Your task to perform on an android device: Show the shopping cart on walmart.com. Search for usb-c to usb-b on walmart.com, select the first entry, add it to the cart, then select checkout. Image 0: 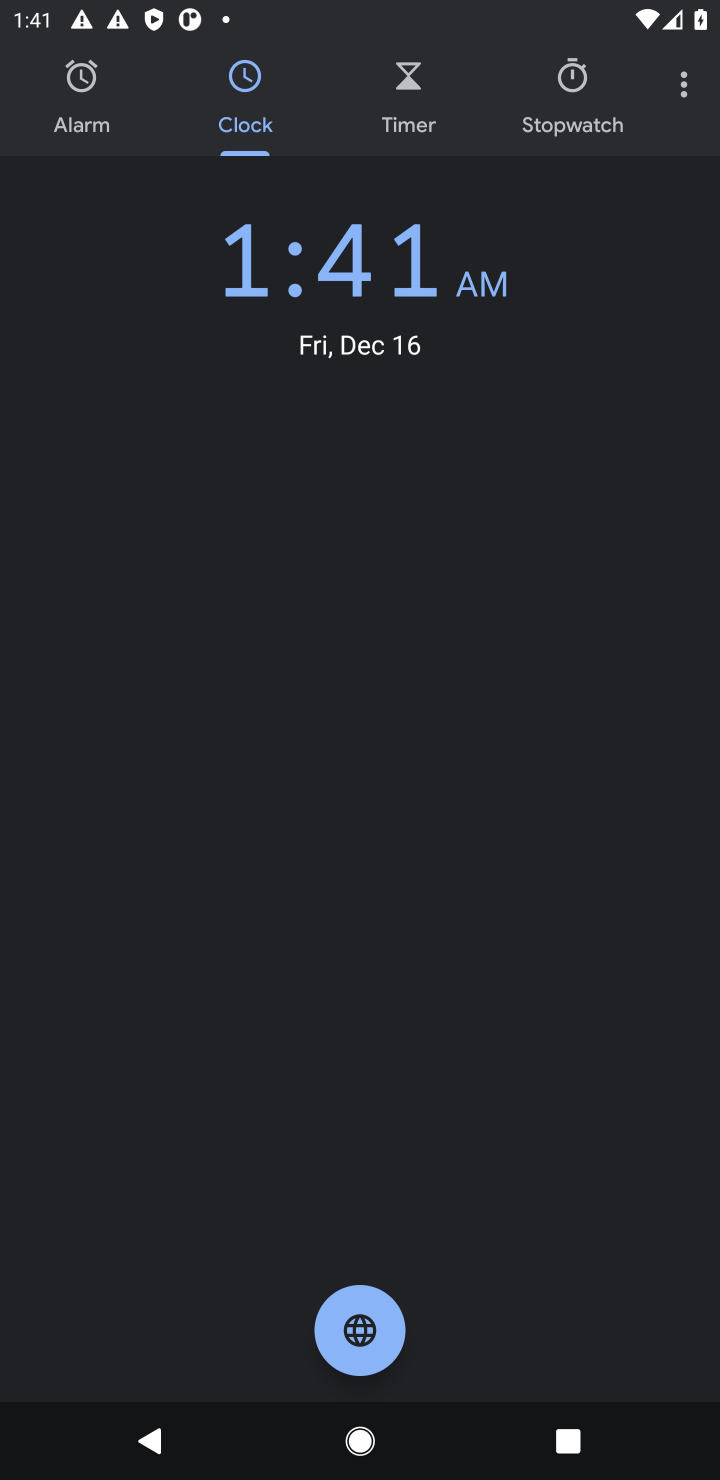
Step 0: press home button
Your task to perform on an android device: Show the shopping cart on walmart.com. Search for usb-c to usb-b on walmart.com, select the first entry, add it to the cart, then select checkout. Image 1: 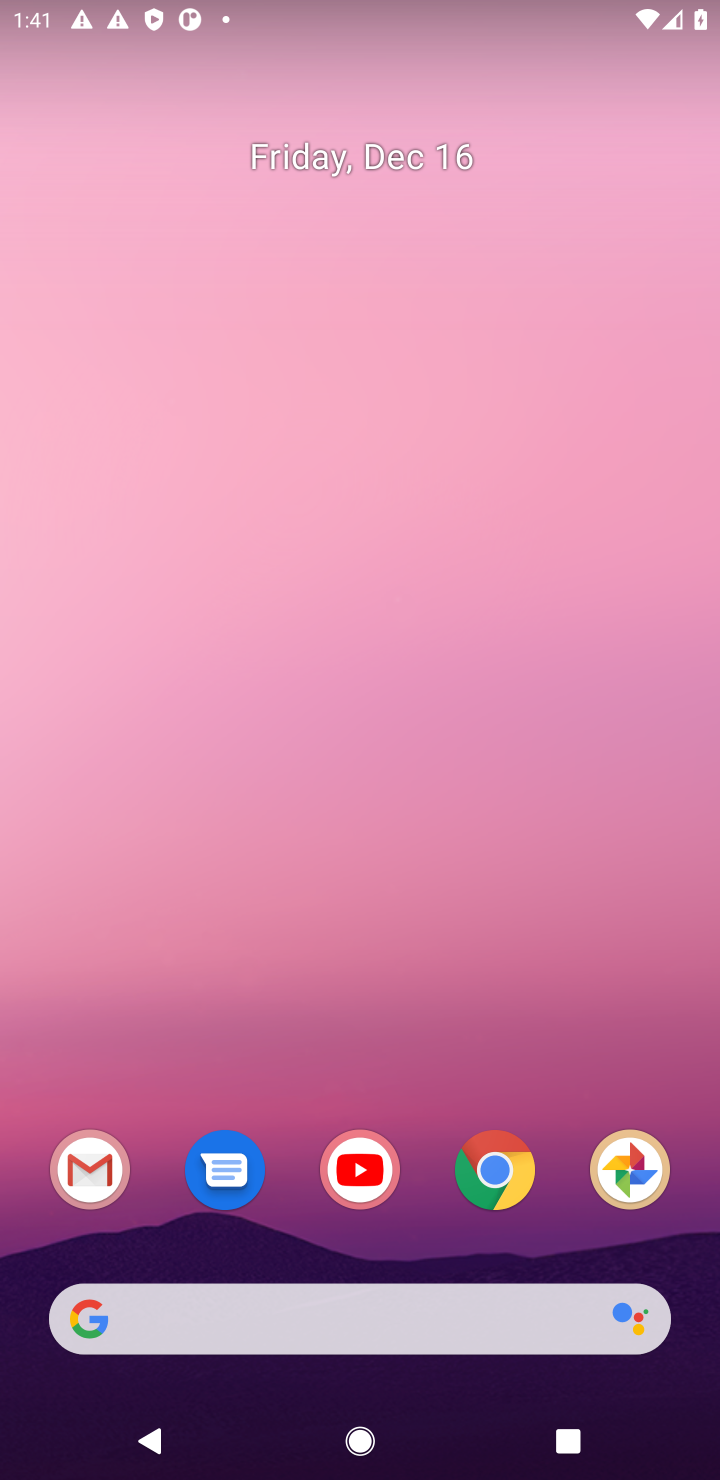
Step 1: click (491, 1181)
Your task to perform on an android device: Show the shopping cart on walmart.com. Search for usb-c to usb-b on walmart.com, select the first entry, add it to the cart, then select checkout. Image 2: 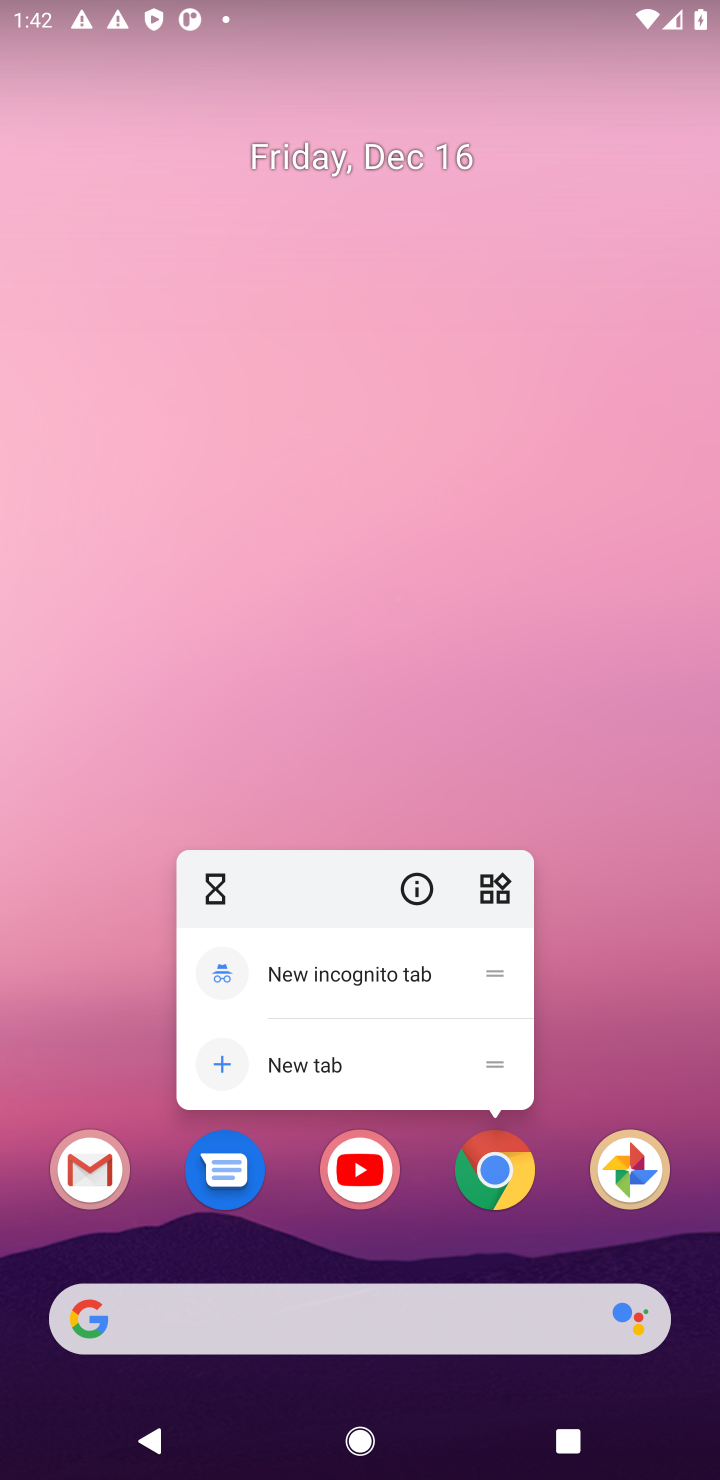
Step 2: click (491, 1181)
Your task to perform on an android device: Show the shopping cart on walmart.com. Search for usb-c to usb-b on walmart.com, select the first entry, add it to the cart, then select checkout. Image 3: 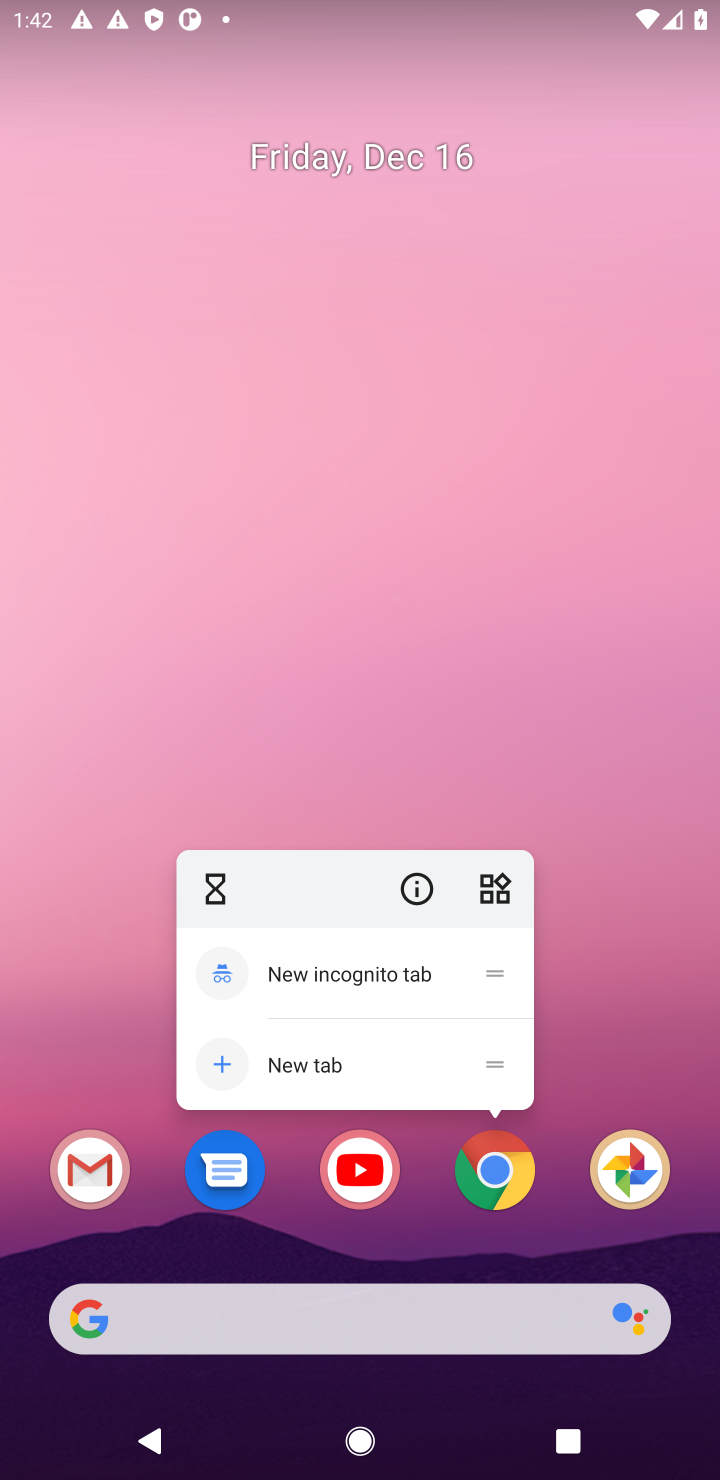
Step 3: click (498, 1172)
Your task to perform on an android device: Show the shopping cart on walmart.com. Search for usb-c to usb-b on walmart.com, select the first entry, add it to the cart, then select checkout. Image 4: 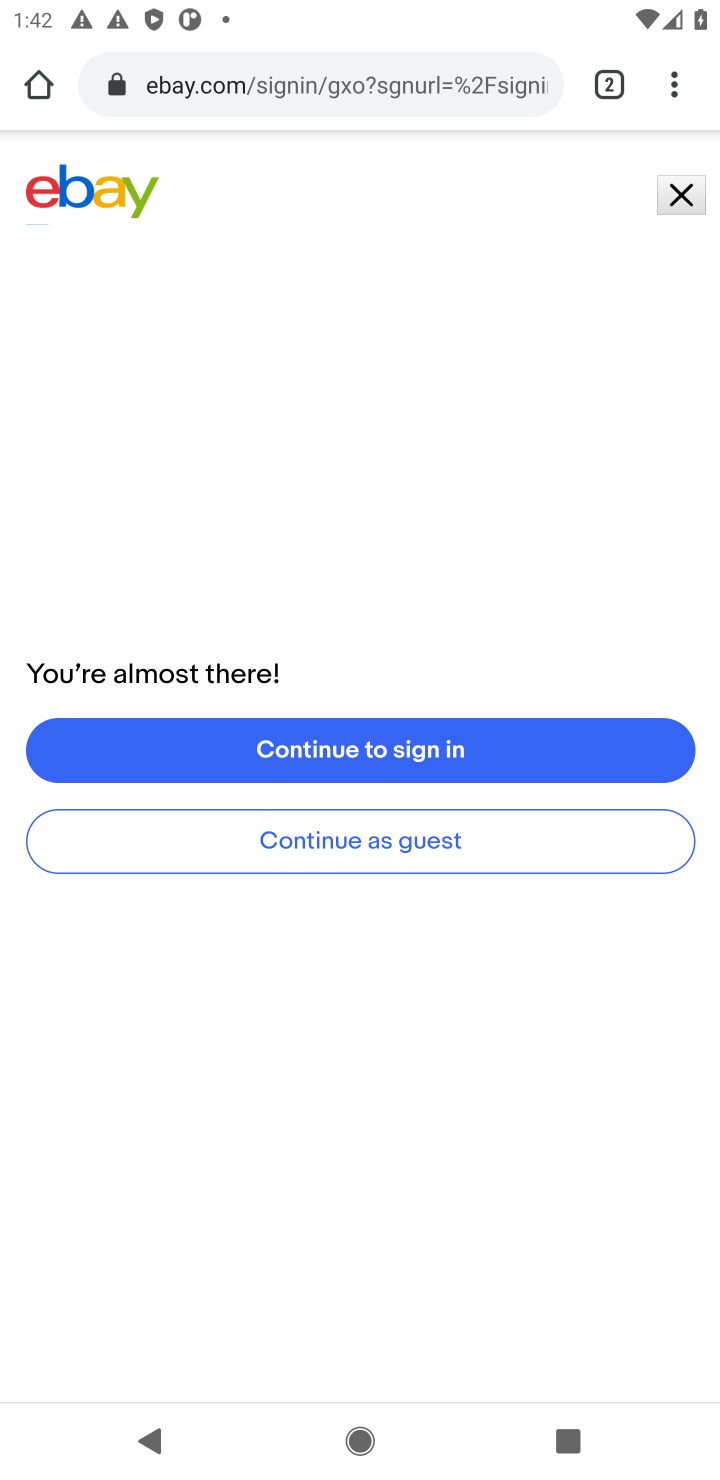
Step 4: click (237, 91)
Your task to perform on an android device: Show the shopping cart on walmart.com. Search for usb-c to usb-b on walmart.com, select the first entry, add it to the cart, then select checkout. Image 5: 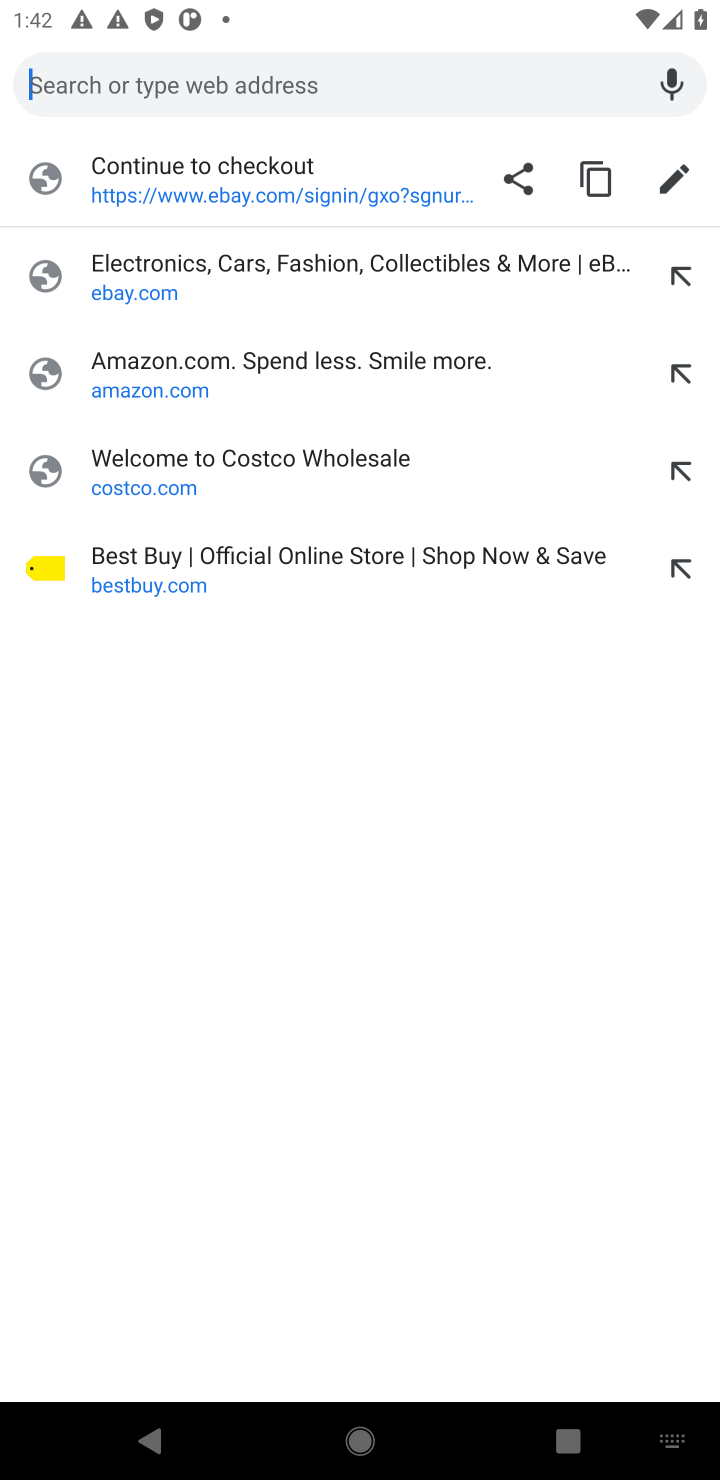
Step 5: type "walmart.com"
Your task to perform on an android device: Show the shopping cart on walmart.com. Search for usb-c to usb-b on walmart.com, select the first entry, add it to the cart, then select checkout. Image 6: 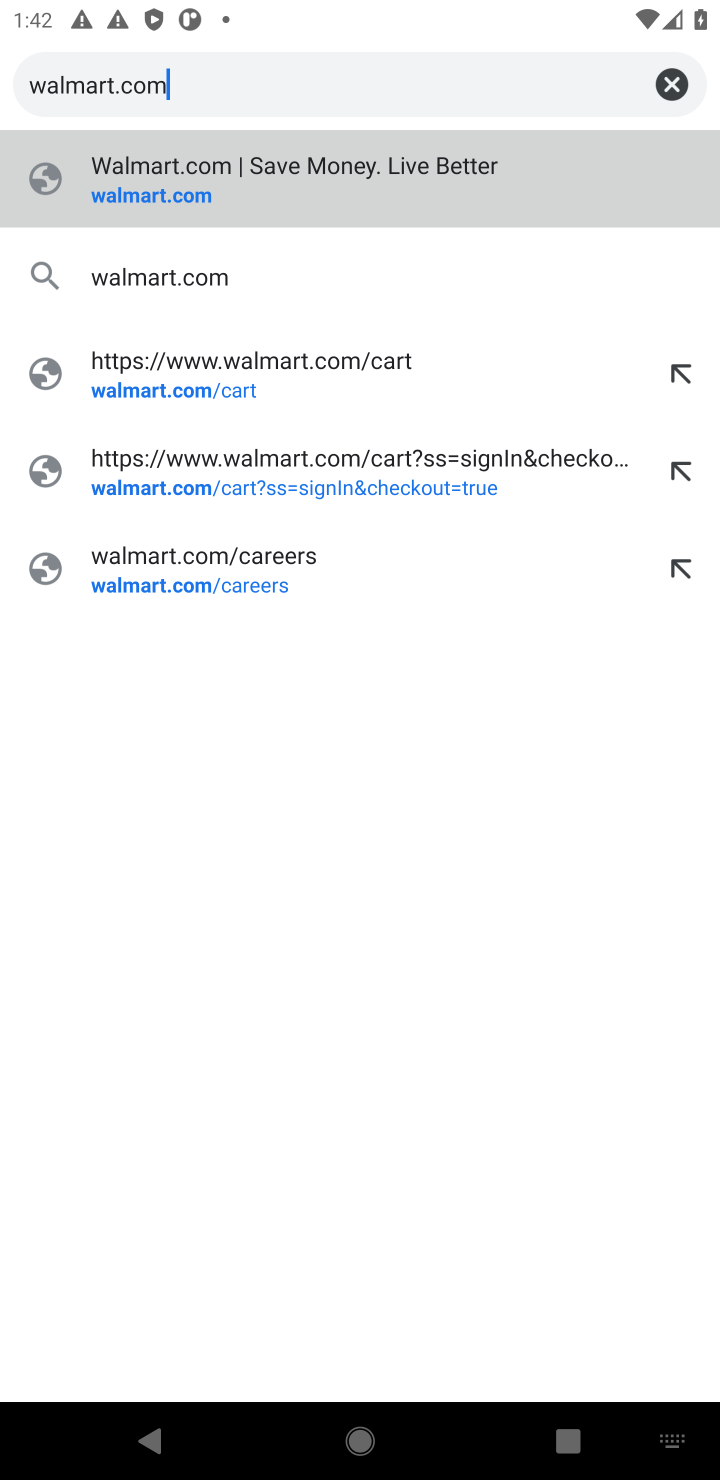
Step 6: click (154, 191)
Your task to perform on an android device: Show the shopping cart on walmart.com. Search for usb-c to usb-b on walmart.com, select the first entry, add it to the cart, then select checkout. Image 7: 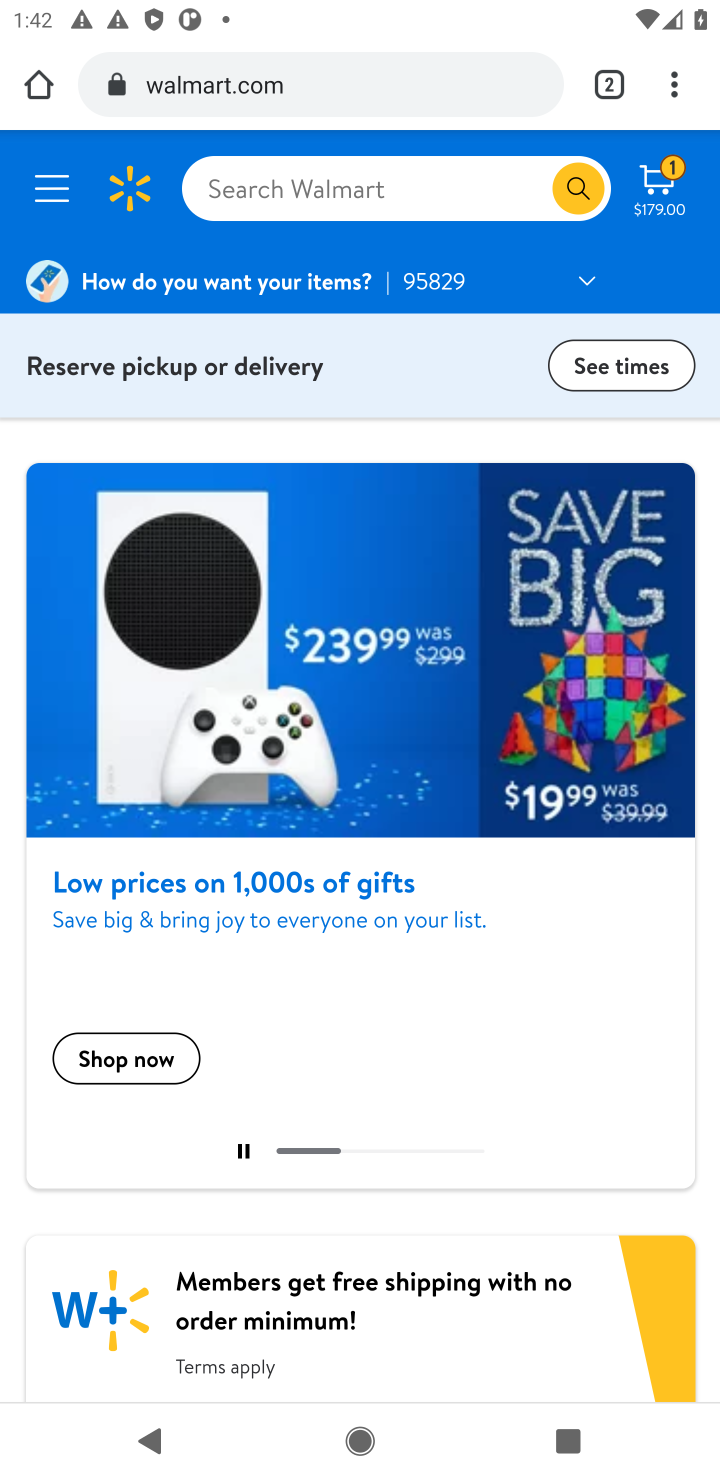
Step 7: click (657, 191)
Your task to perform on an android device: Show the shopping cart on walmart.com. Search for usb-c to usb-b on walmart.com, select the first entry, add it to the cart, then select checkout. Image 8: 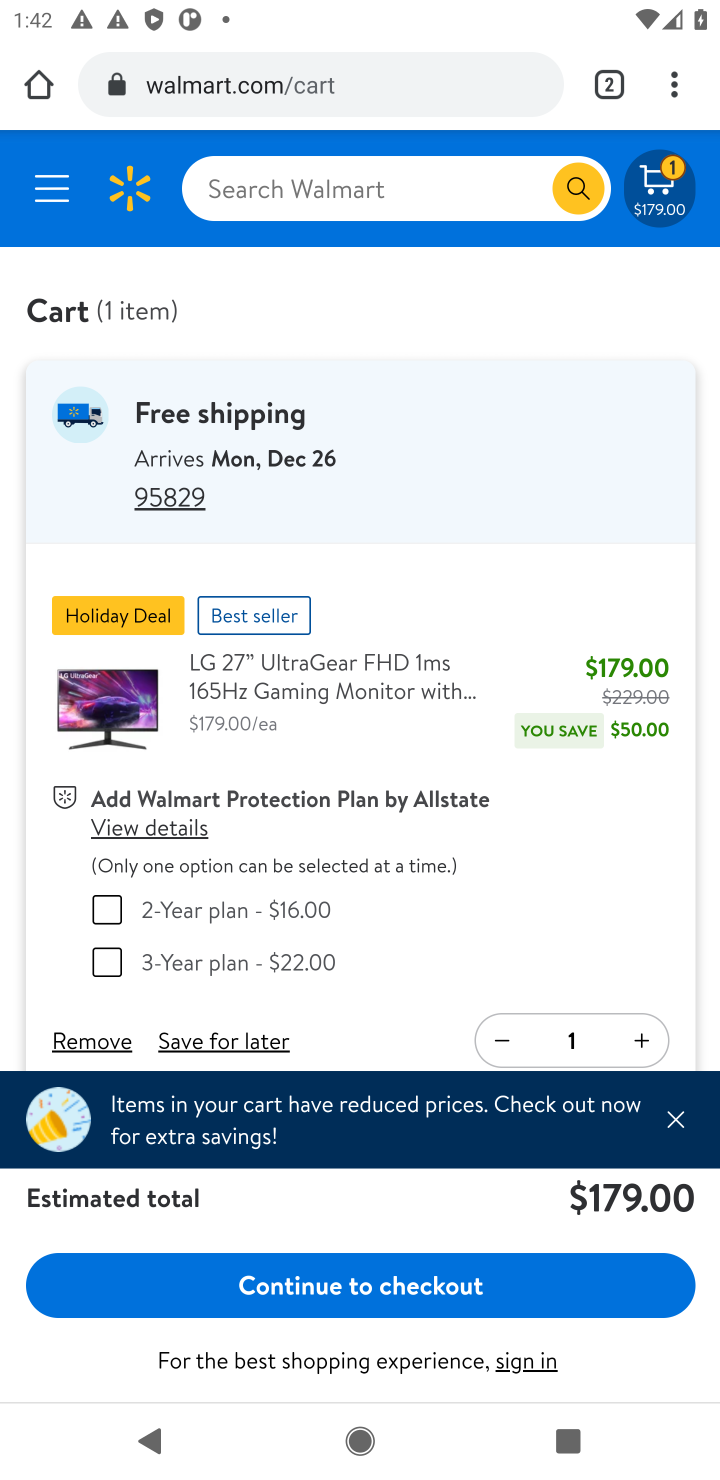
Step 8: drag from (296, 888) to (285, 627)
Your task to perform on an android device: Show the shopping cart on walmart.com. Search for usb-c to usb-b on walmart.com, select the first entry, add it to the cart, then select checkout. Image 9: 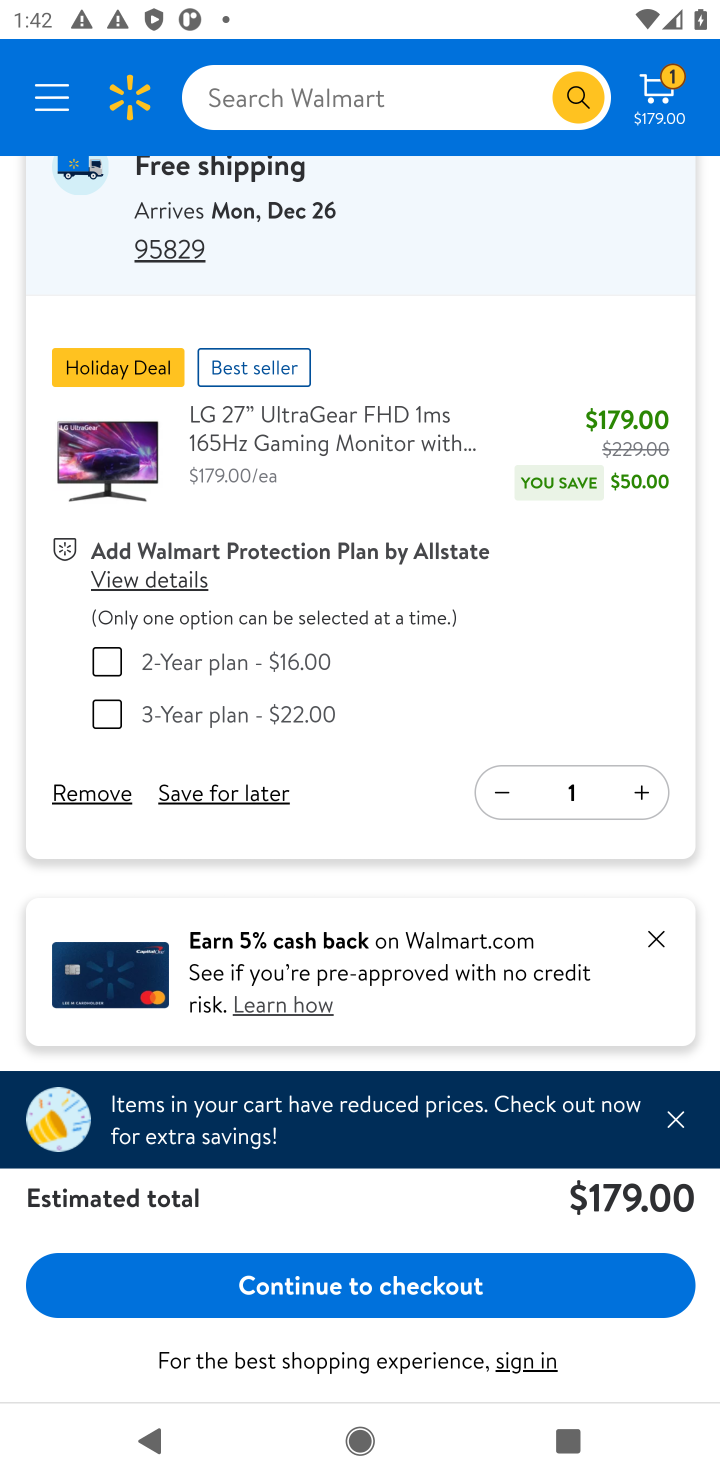
Step 9: click (330, 89)
Your task to perform on an android device: Show the shopping cart on walmart.com. Search for usb-c to usb-b on walmart.com, select the first entry, add it to the cart, then select checkout. Image 10: 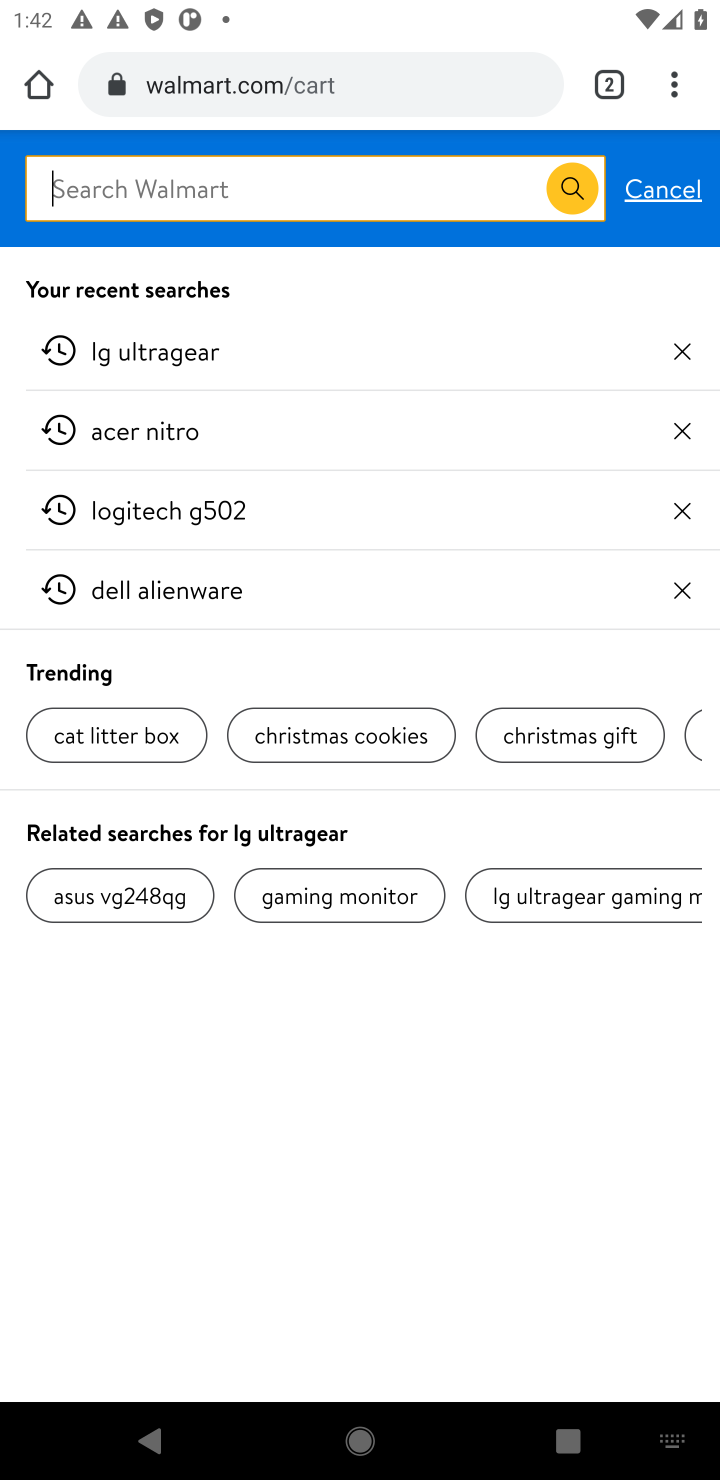
Step 10: type "usb-c to usb-b"
Your task to perform on an android device: Show the shopping cart on walmart.com. Search for usb-c to usb-b on walmart.com, select the first entry, add it to the cart, then select checkout. Image 11: 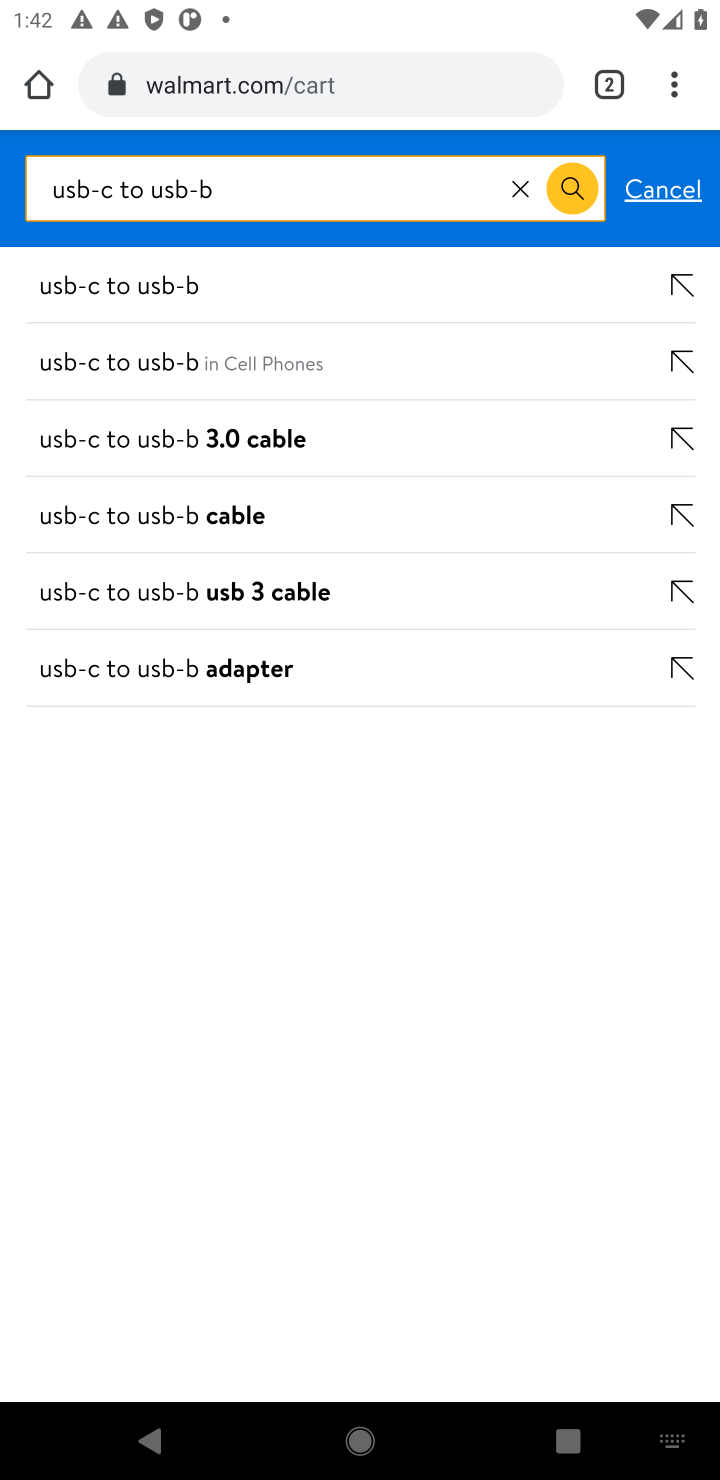
Step 11: click (120, 293)
Your task to perform on an android device: Show the shopping cart on walmart.com. Search for usb-c to usb-b on walmart.com, select the first entry, add it to the cart, then select checkout. Image 12: 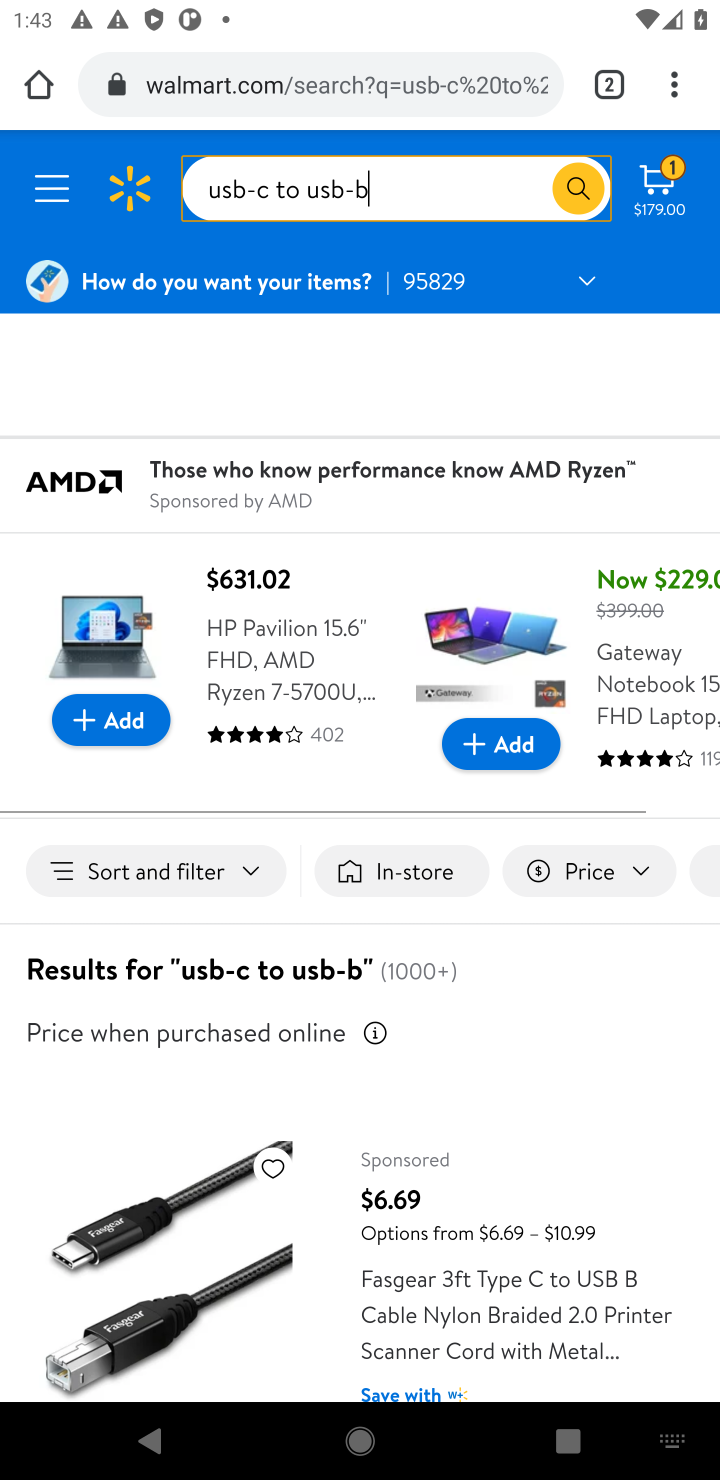
Step 12: task complete